Your task to perform on an android device: find photos in the google photos app Image 0: 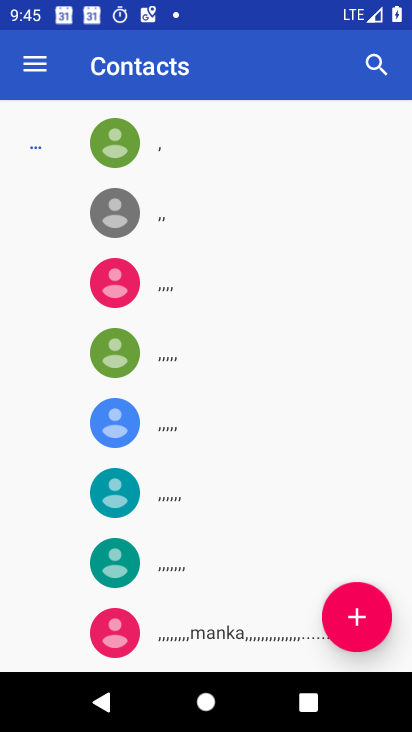
Step 0: press home button
Your task to perform on an android device: find photos in the google photos app Image 1: 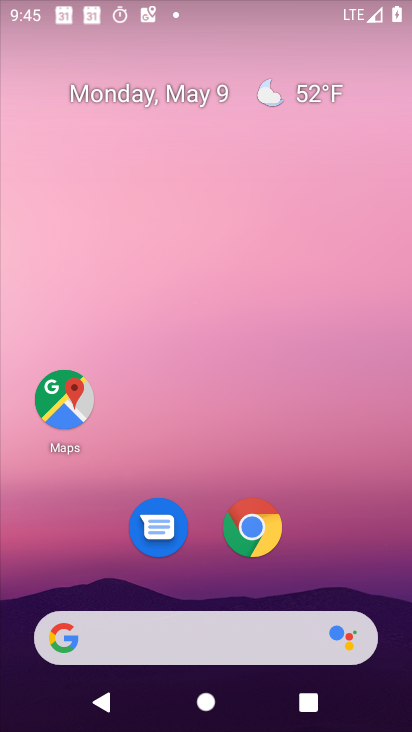
Step 1: drag from (354, 541) to (372, 199)
Your task to perform on an android device: find photos in the google photos app Image 2: 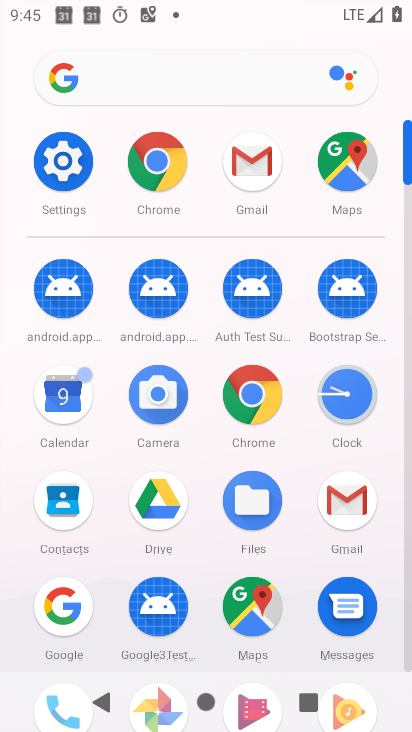
Step 2: drag from (201, 611) to (220, 363)
Your task to perform on an android device: find photos in the google photos app Image 3: 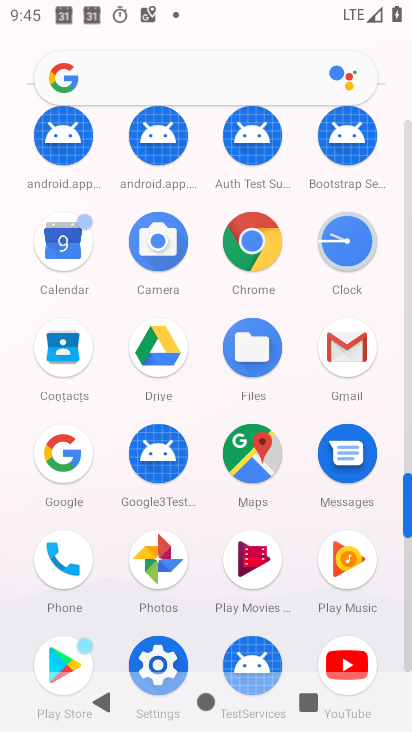
Step 3: click (155, 562)
Your task to perform on an android device: find photos in the google photos app Image 4: 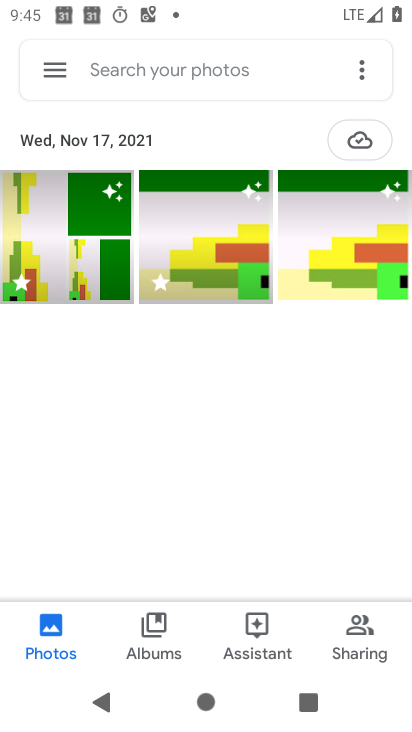
Step 4: task complete